Your task to perform on an android device: Open the map Image 0: 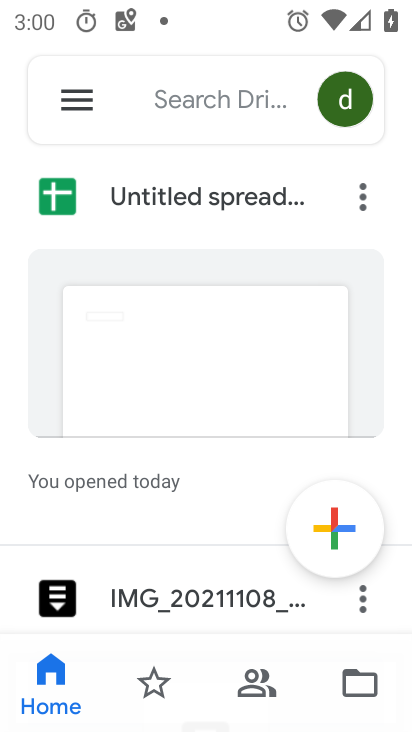
Step 0: press back button
Your task to perform on an android device: Open the map Image 1: 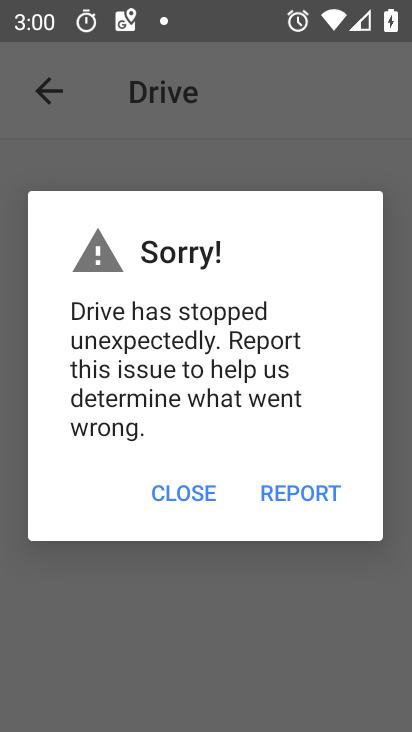
Step 1: click (163, 489)
Your task to perform on an android device: Open the map Image 2: 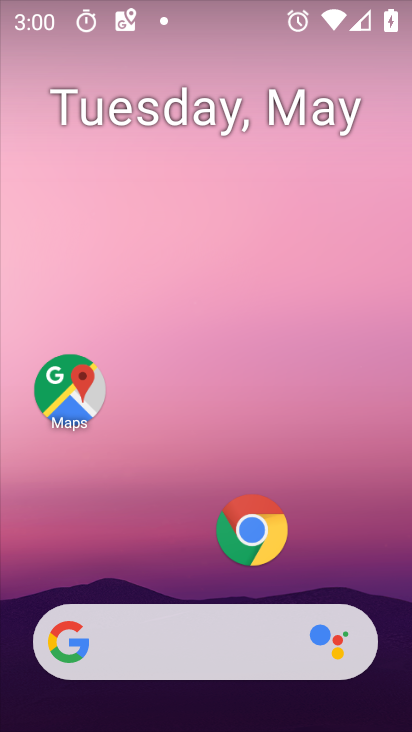
Step 2: drag from (191, 584) to (109, 30)
Your task to perform on an android device: Open the map Image 3: 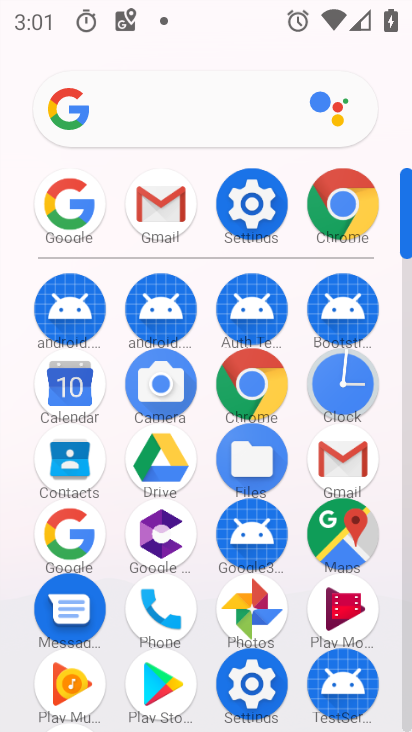
Step 3: click (342, 538)
Your task to perform on an android device: Open the map Image 4: 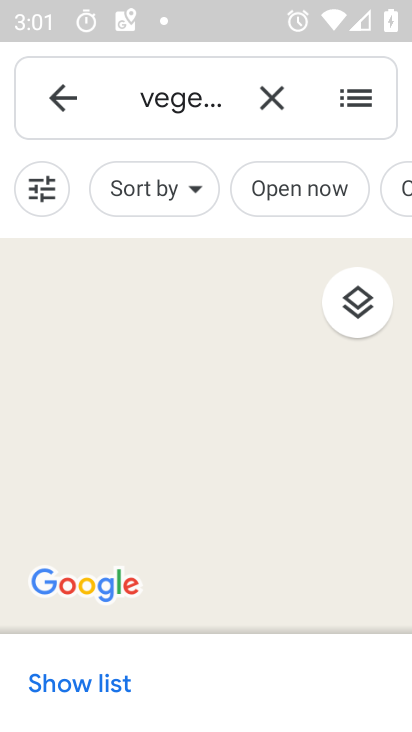
Step 4: task complete